Your task to perform on an android device: Go to Google Image 0: 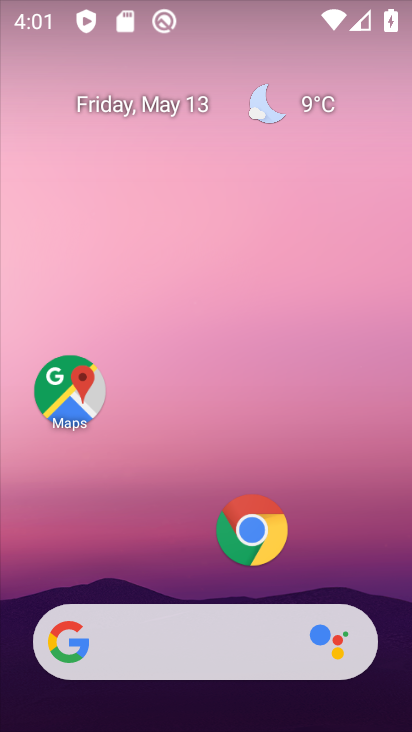
Step 0: drag from (203, 584) to (257, 89)
Your task to perform on an android device: Go to Google Image 1: 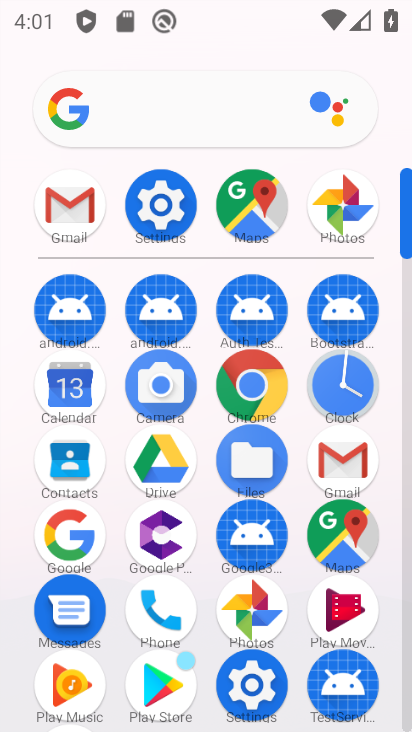
Step 1: click (72, 535)
Your task to perform on an android device: Go to Google Image 2: 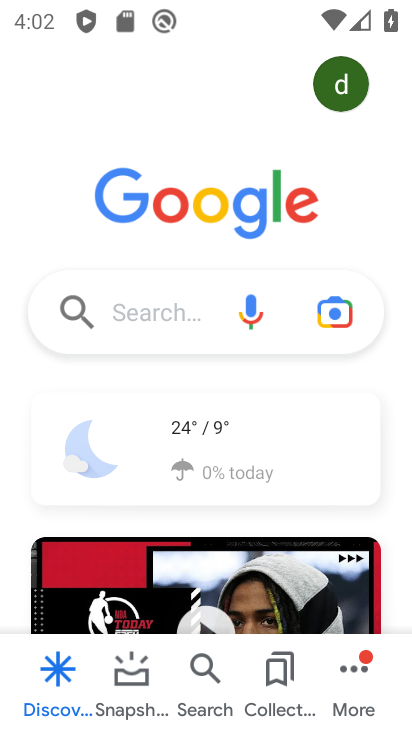
Step 2: task complete